Your task to perform on an android device: open sync settings in chrome Image 0: 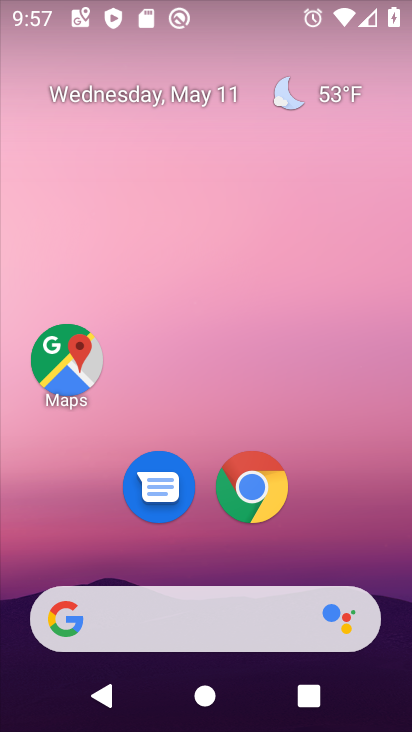
Step 0: click (266, 496)
Your task to perform on an android device: open sync settings in chrome Image 1: 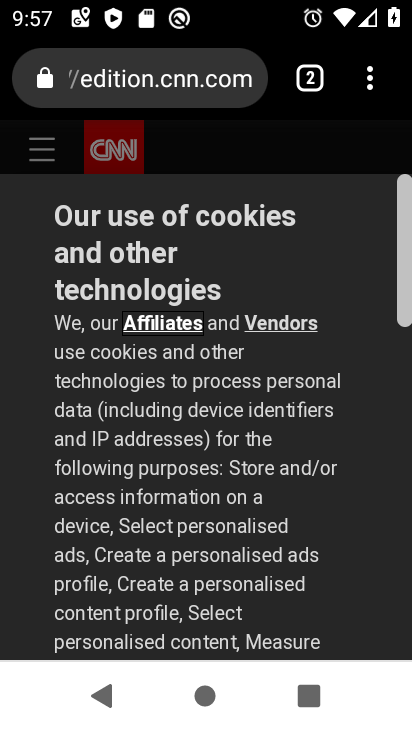
Step 1: drag from (361, 87) to (102, 553)
Your task to perform on an android device: open sync settings in chrome Image 2: 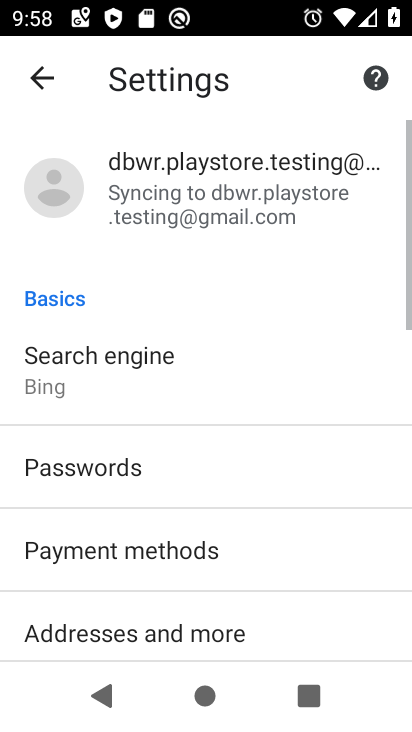
Step 2: drag from (139, 578) to (151, 239)
Your task to perform on an android device: open sync settings in chrome Image 3: 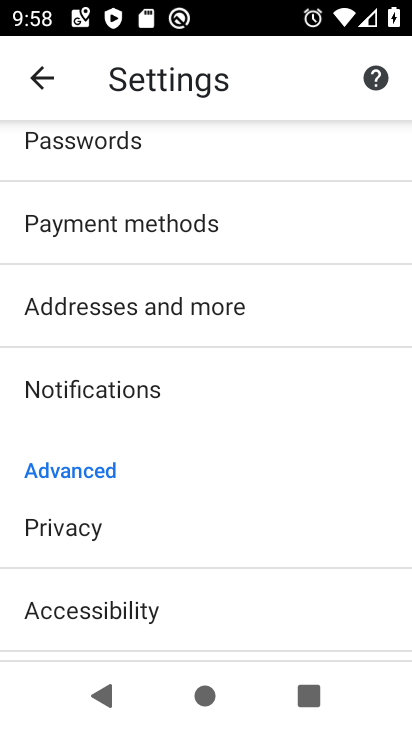
Step 3: drag from (171, 537) to (162, 634)
Your task to perform on an android device: open sync settings in chrome Image 4: 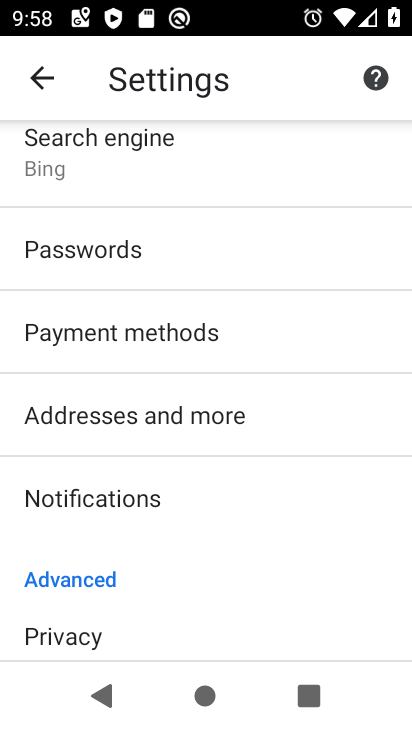
Step 4: drag from (207, 142) to (251, 438)
Your task to perform on an android device: open sync settings in chrome Image 5: 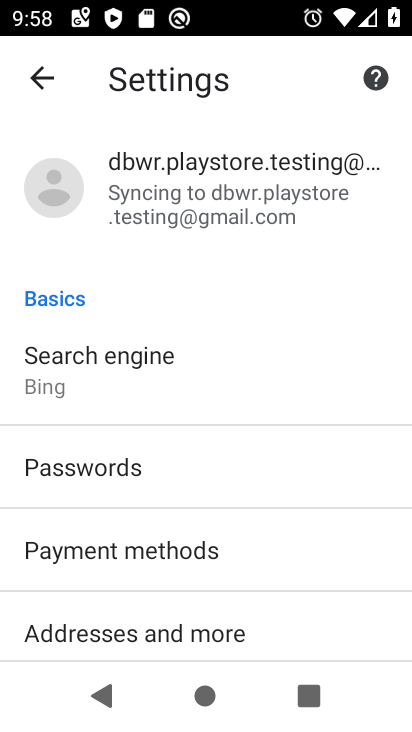
Step 5: click (204, 198)
Your task to perform on an android device: open sync settings in chrome Image 6: 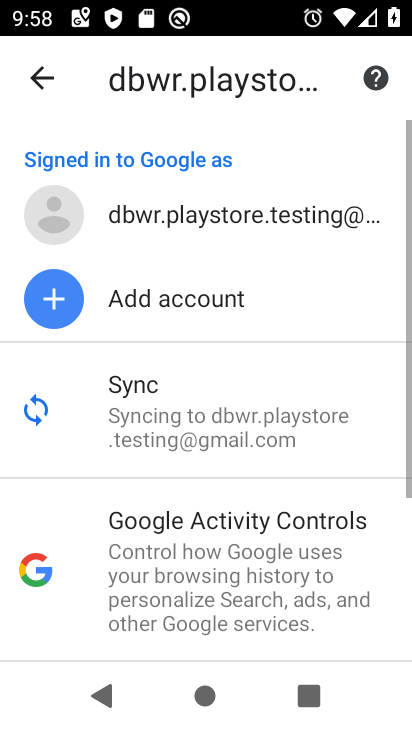
Step 6: click (171, 419)
Your task to perform on an android device: open sync settings in chrome Image 7: 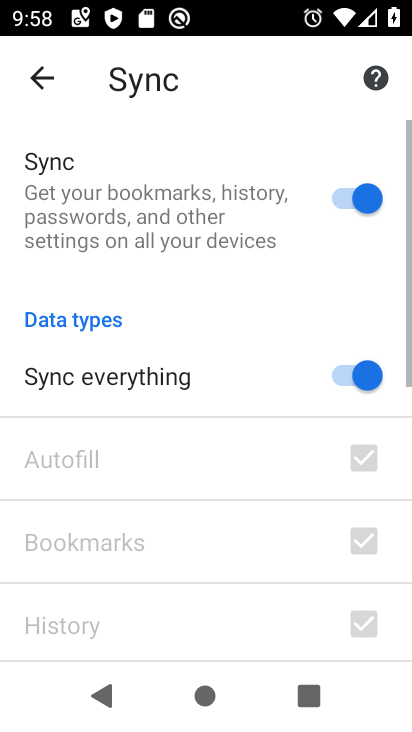
Step 7: task complete